Your task to perform on an android device: Open internet settings Image 0: 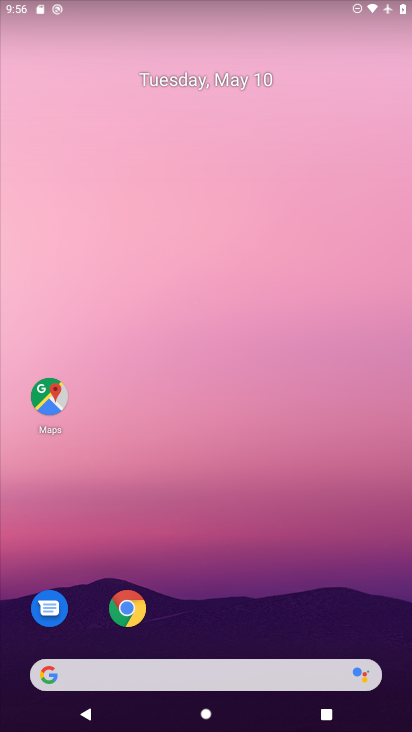
Step 0: drag from (242, 584) to (282, 216)
Your task to perform on an android device: Open internet settings Image 1: 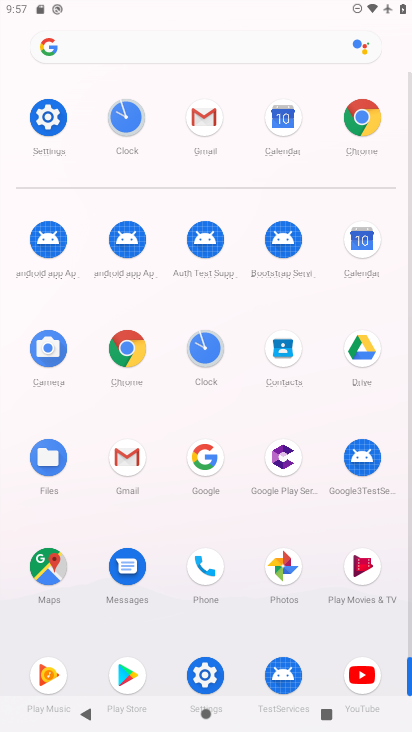
Step 1: click (43, 119)
Your task to perform on an android device: Open internet settings Image 2: 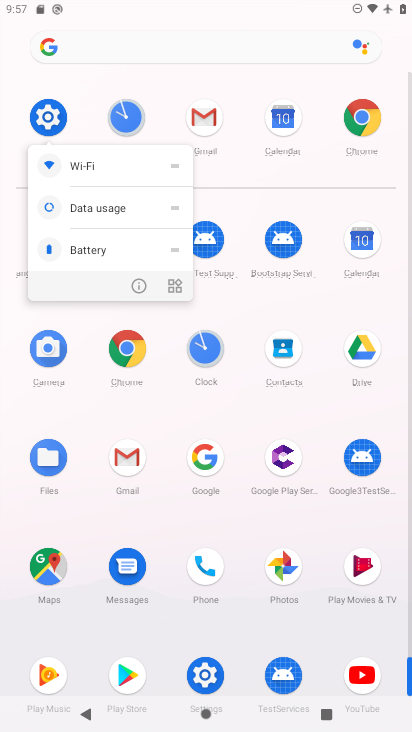
Step 2: click (43, 110)
Your task to perform on an android device: Open internet settings Image 3: 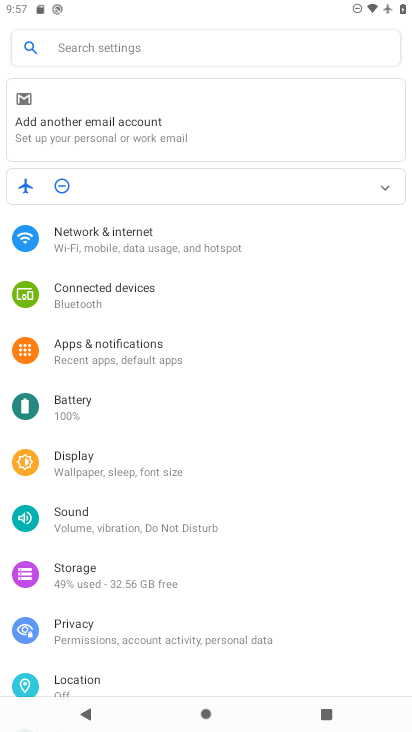
Step 3: click (118, 241)
Your task to perform on an android device: Open internet settings Image 4: 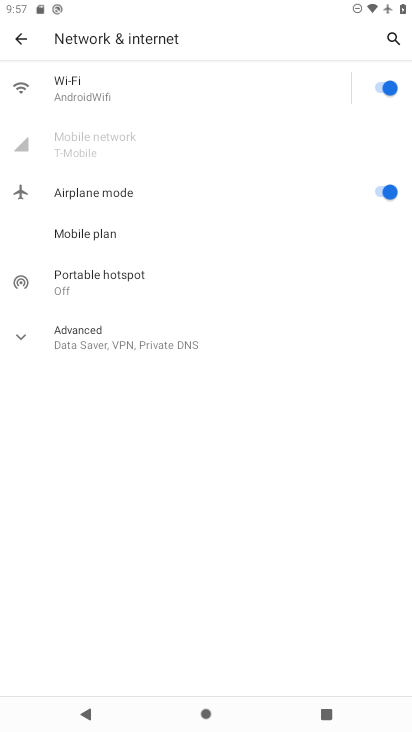
Step 4: task complete